Your task to perform on an android device: What's on my calendar tomorrow? Image 0: 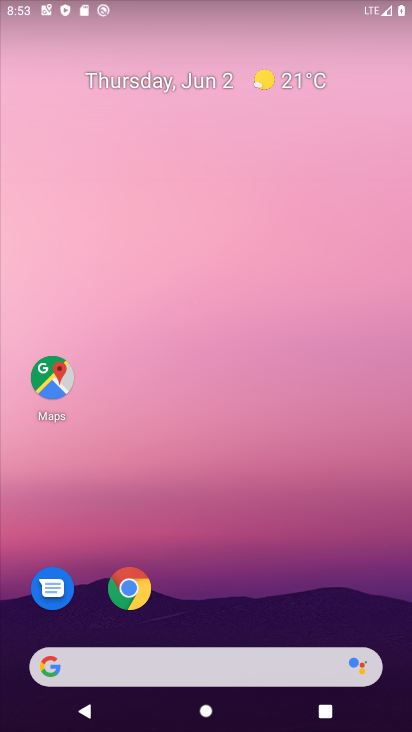
Step 0: drag from (223, 505) to (224, 160)
Your task to perform on an android device: What's on my calendar tomorrow? Image 1: 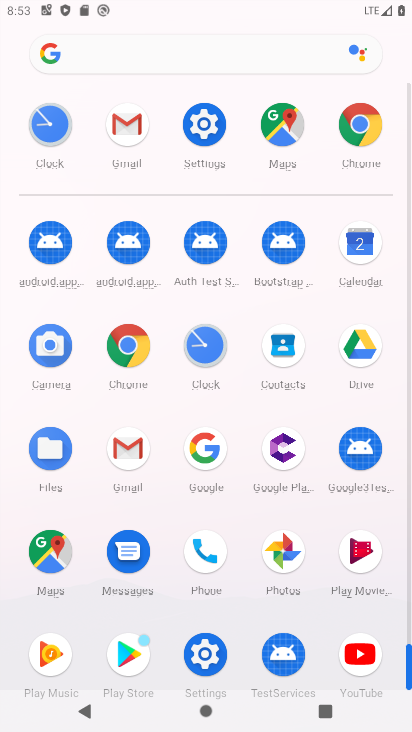
Step 1: click (361, 264)
Your task to perform on an android device: What's on my calendar tomorrow? Image 2: 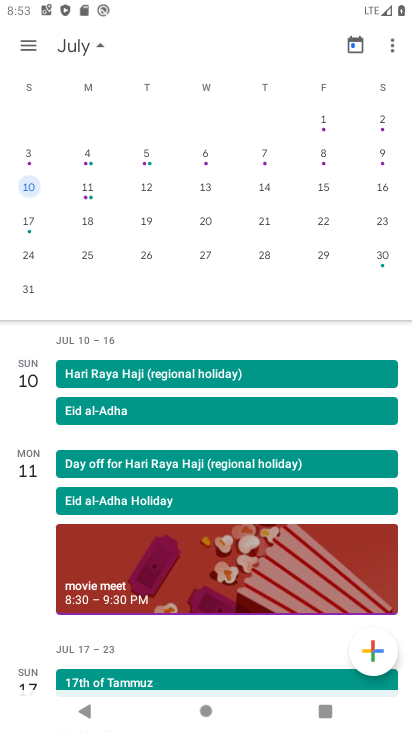
Step 2: drag from (30, 216) to (410, 243)
Your task to perform on an android device: What's on my calendar tomorrow? Image 3: 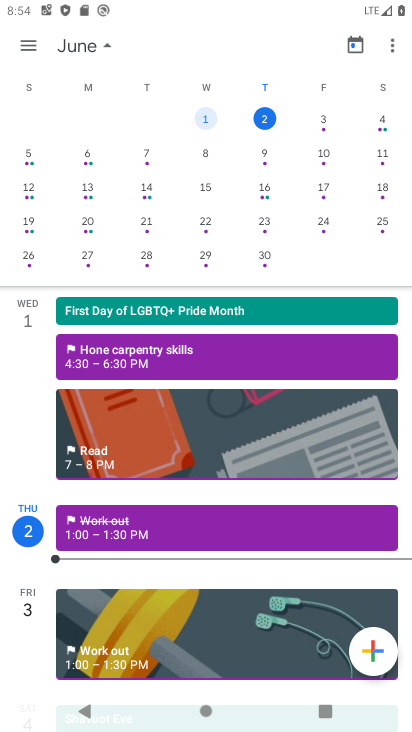
Step 3: click (327, 128)
Your task to perform on an android device: What's on my calendar tomorrow? Image 4: 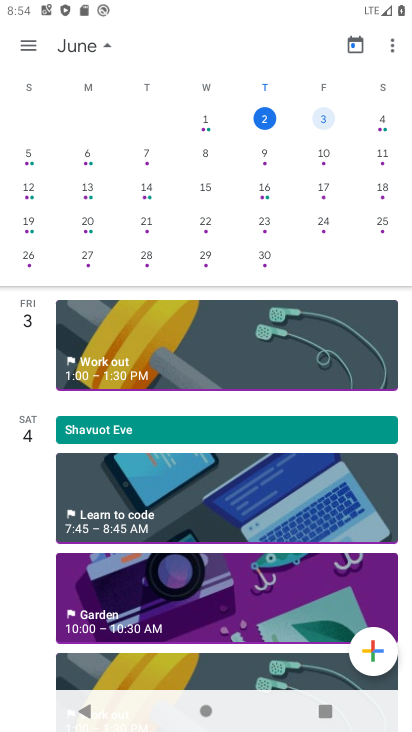
Step 4: task complete